Your task to perform on an android device: Open display settings Image 0: 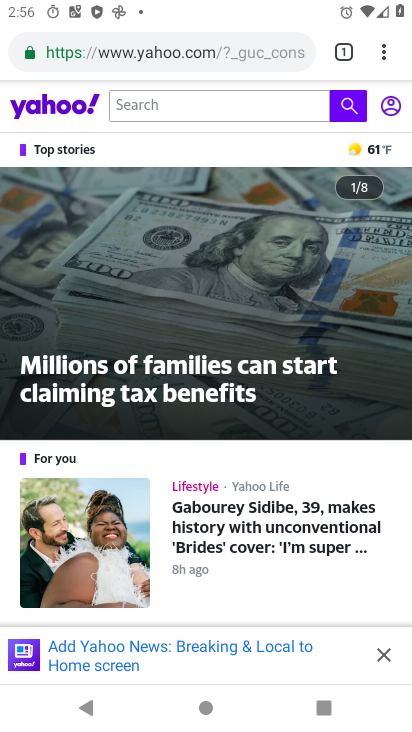
Step 0: press home button
Your task to perform on an android device: Open display settings Image 1: 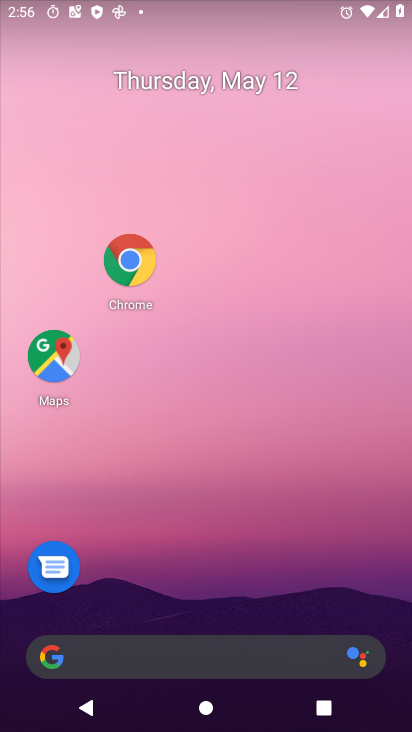
Step 1: drag from (201, 641) to (283, 296)
Your task to perform on an android device: Open display settings Image 2: 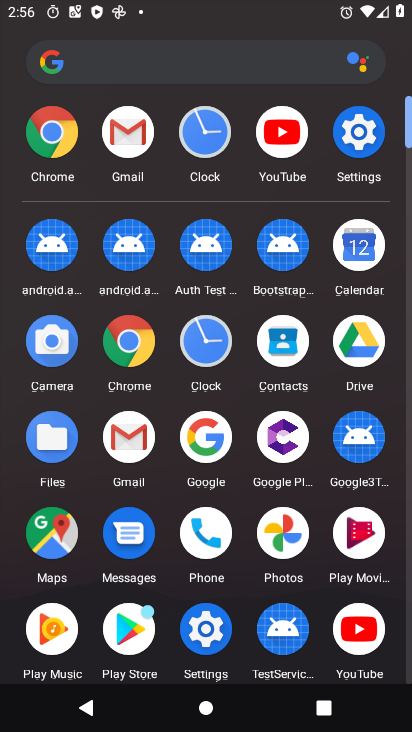
Step 2: click (369, 134)
Your task to perform on an android device: Open display settings Image 3: 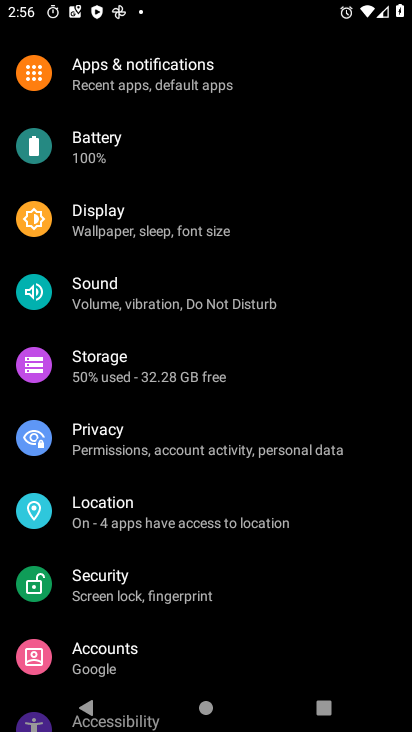
Step 3: click (114, 232)
Your task to perform on an android device: Open display settings Image 4: 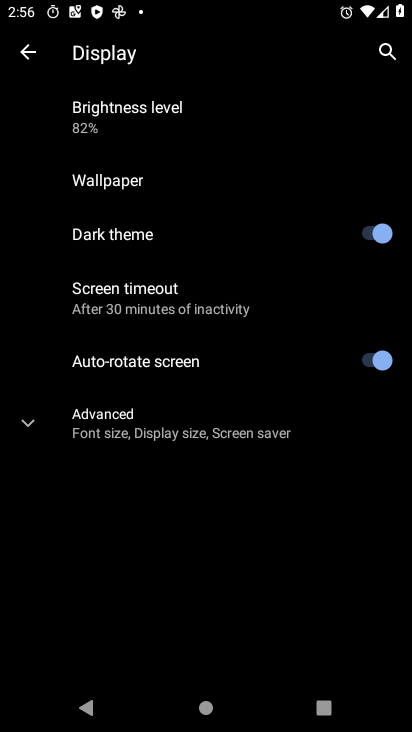
Step 4: click (131, 425)
Your task to perform on an android device: Open display settings Image 5: 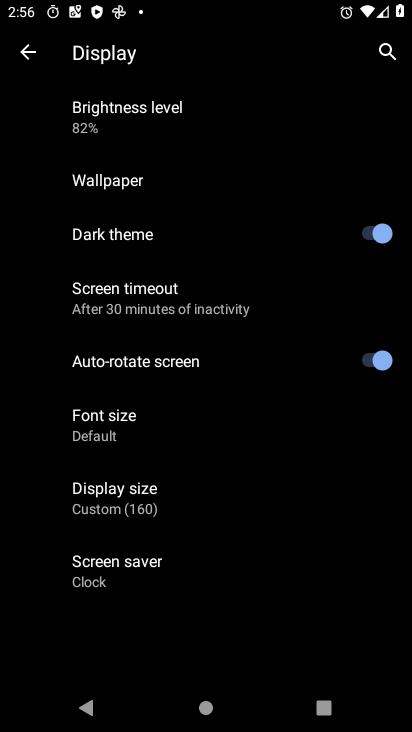
Step 5: task complete